Your task to perform on an android device: What's the weather going to be this weekend? Image 0: 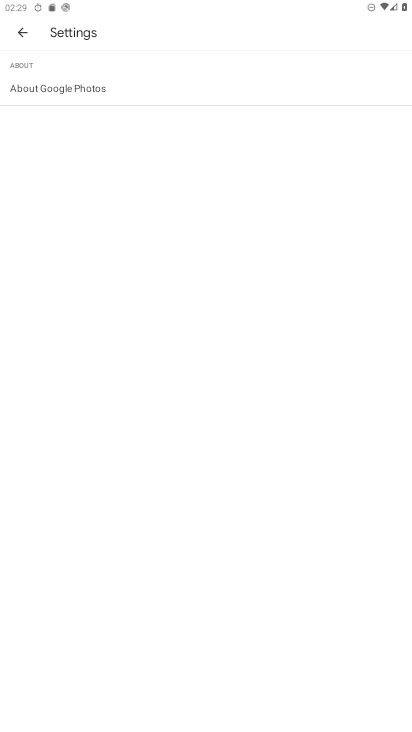
Step 0: press home button
Your task to perform on an android device: What's the weather going to be this weekend? Image 1: 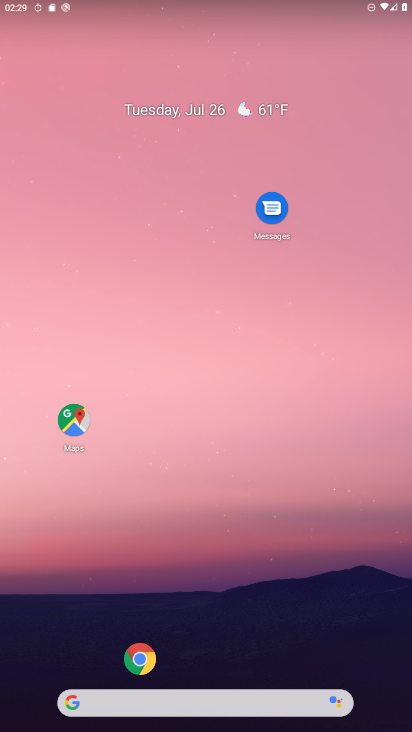
Step 1: click (147, 702)
Your task to perform on an android device: What's the weather going to be this weekend? Image 2: 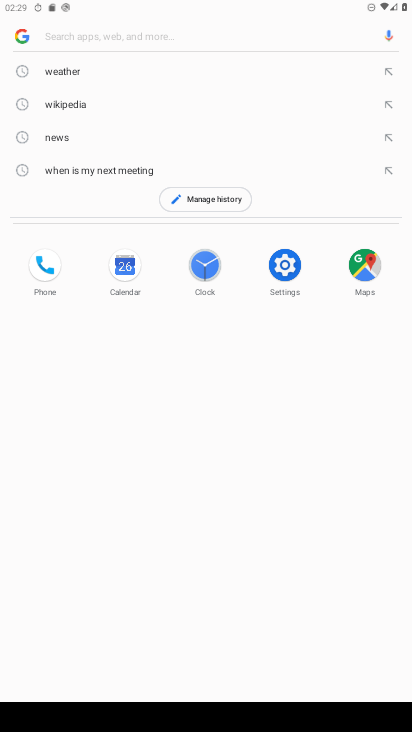
Step 2: type "What's the weather going to be this weekend?"
Your task to perform on an android device: What's the weather going to be this weekend? Image 3: 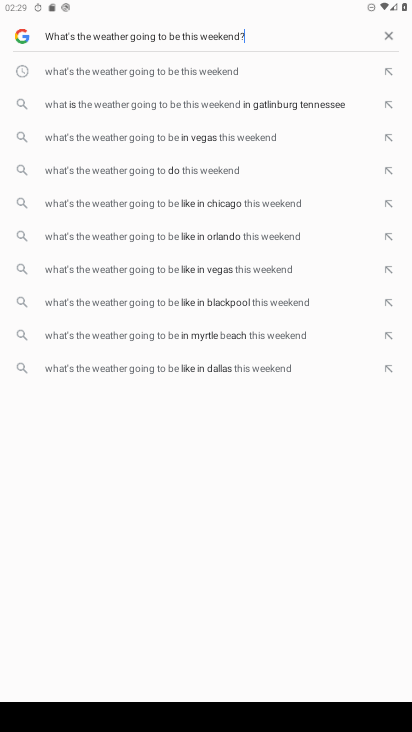
Step 3: type ""
Your task to perform on an android device: What's the weather going to be this weekend? Image 4: 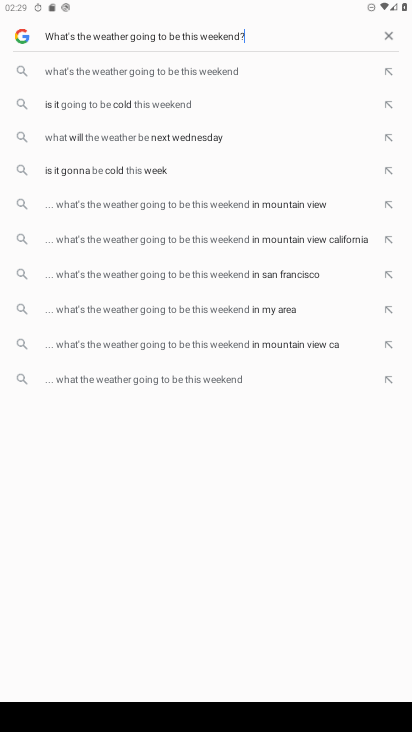
Step 4: click (204, 76)
Your task to perform on an android device: What's the weather going to be this weekend? Image 5: 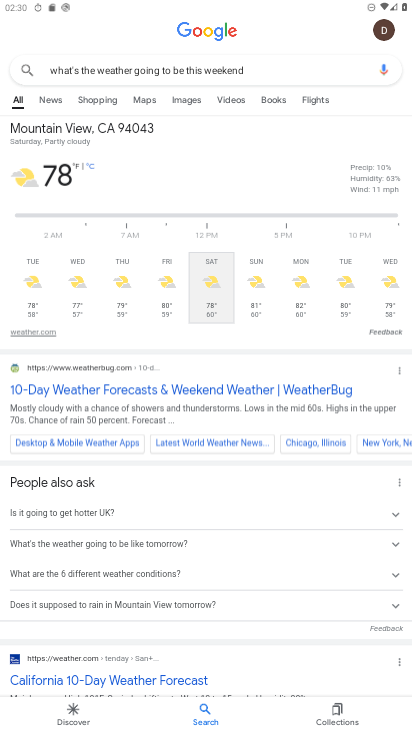
Step 5: task complete